Your task to perform on an android device: Is it going to rain tomorrow? Image 0: 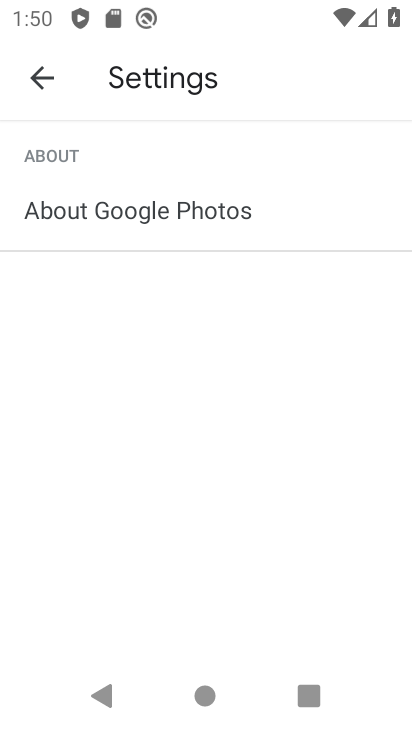
Step 0: press home button
Your task to perform on an android device: Is it going to rain tomorrow? Image 1: 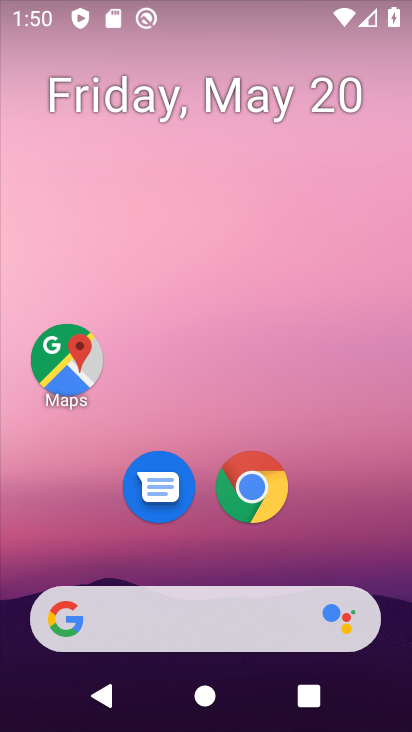
Step 1: click (74, 605)
Your task to perform on an android device: Is it going to rain tomorrow? Image 2: 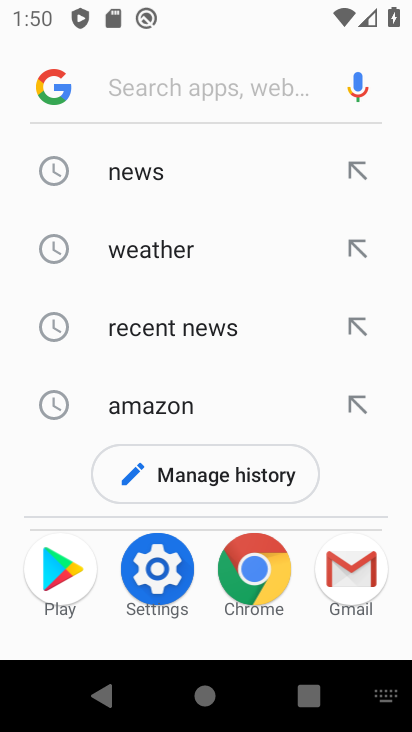
Step 2: click (61, 88)
Your task to perform on an android device: Is it going to rain tomorrow? Image 3: 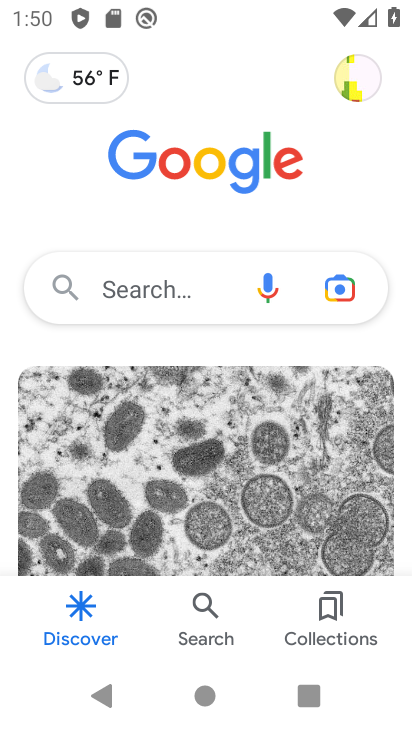
Step 3: click (65, 70)
Your task to perform on an android device: Is it going to rain tomorrow? Image 4: 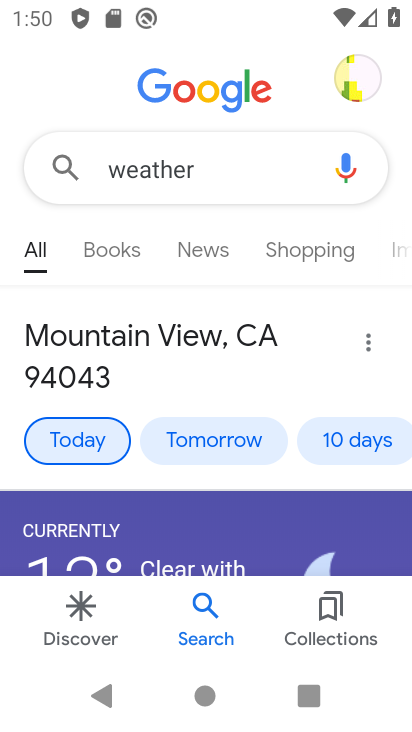
Step 4: task complete